Your task to perform on an android device: How much does a 2 bedroom apartment rent for in San Francisco? Image 0: 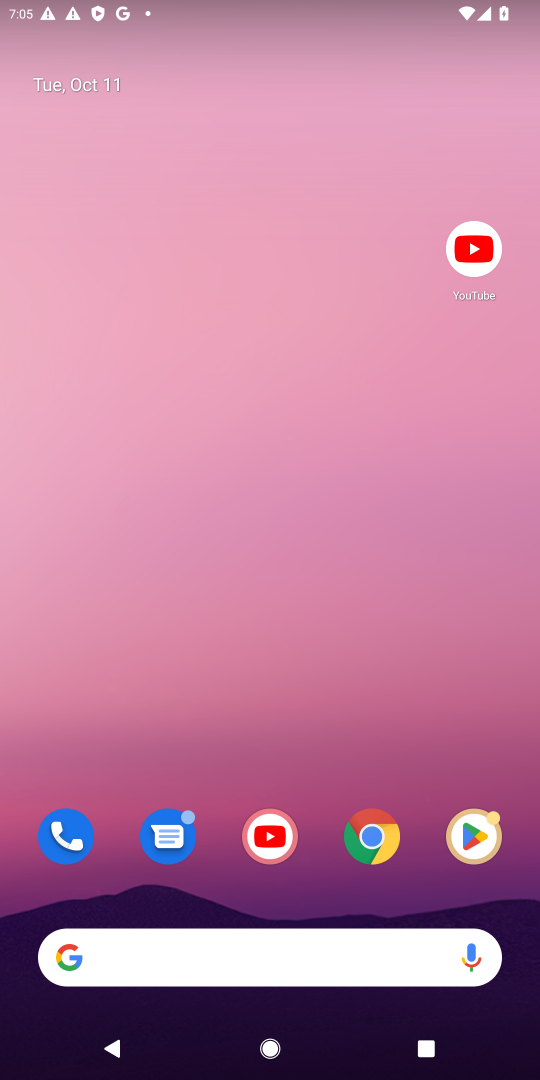
Step 0: click (363, 844)
Your task to perform on an android device: How much does a 2 bedroom apartment rent for in San Francisco? Image 1: 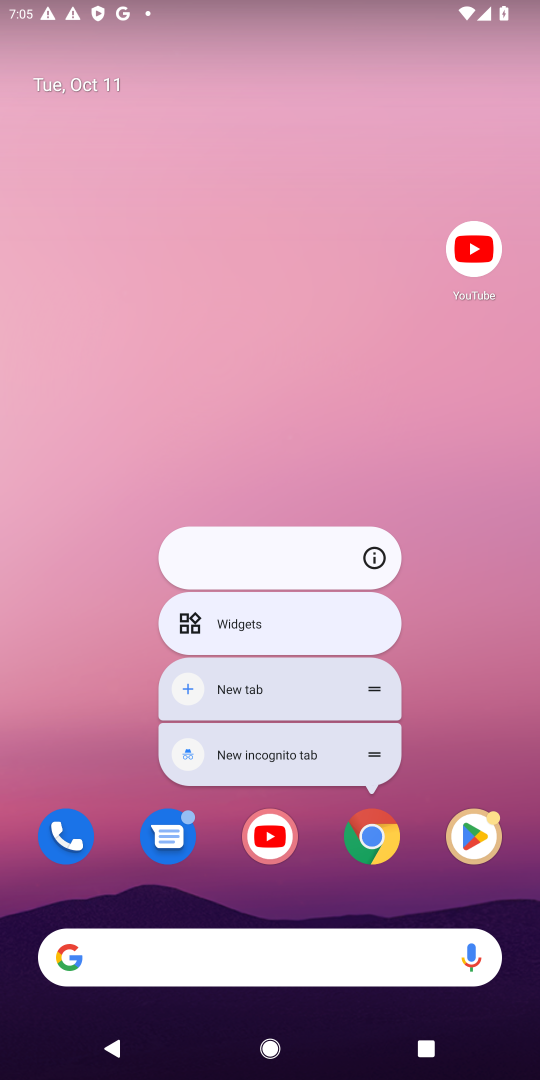
Step 1: click (361, 843)
Your task to perform on an android device: How much does a 2 bedroom apartment rent for in San Francisco? Image 2: 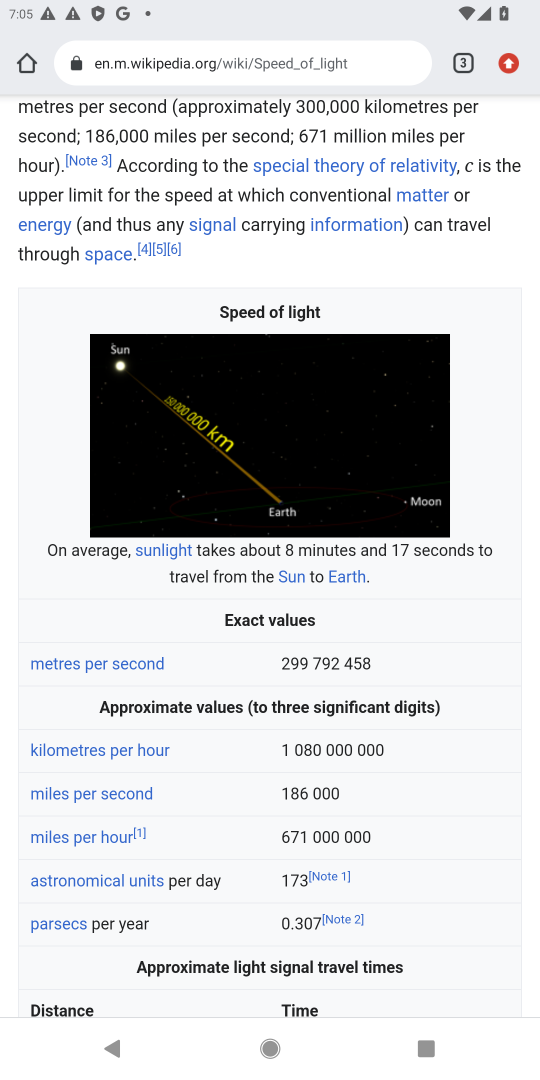
Step 2: click (163, 66)
Your task to perform on an android device: How much does a 2 bedroom apartment rent for in San Francisco? Image 3: 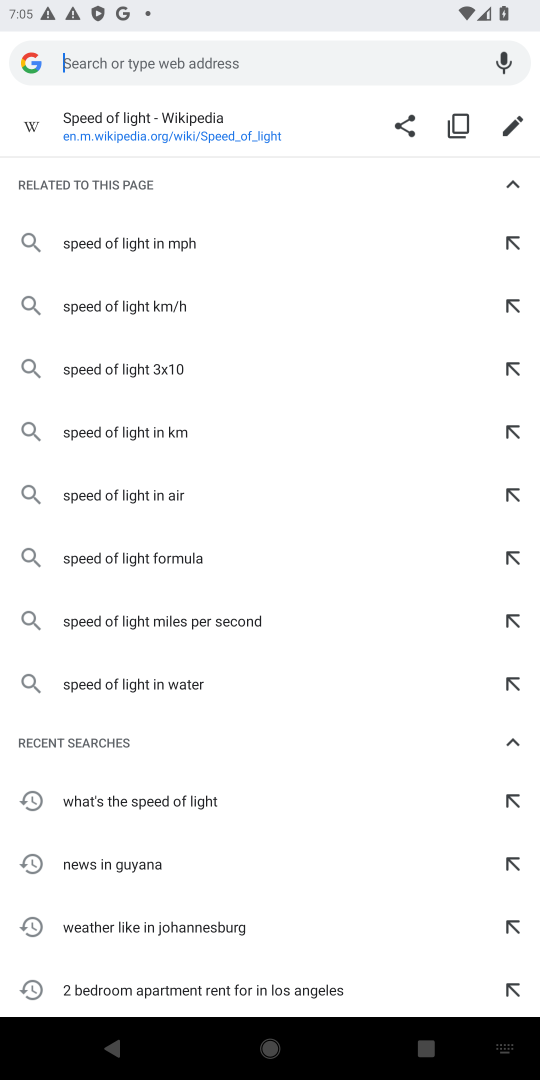
Step 3: type "2 bedroom apartment rent for in San Francisco"
Your task to perform on an android device: How much does a 2 bedroom apartment rent for in San Francisco? Image 4: 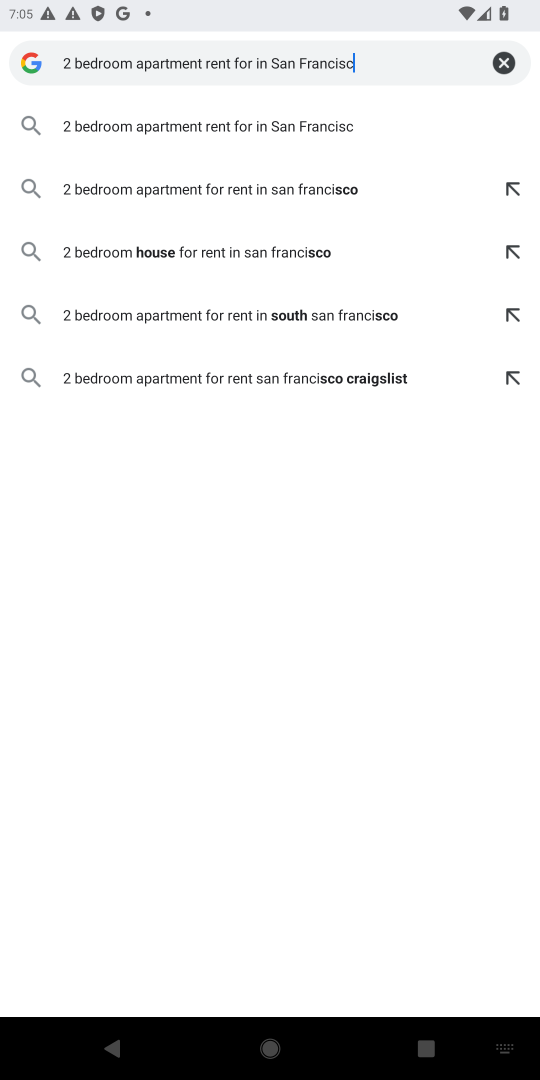
Step 4: press enter
Your task to perform on an android device: How much does a 2 bedroom apartment rent for in San Francisco? Image 5: 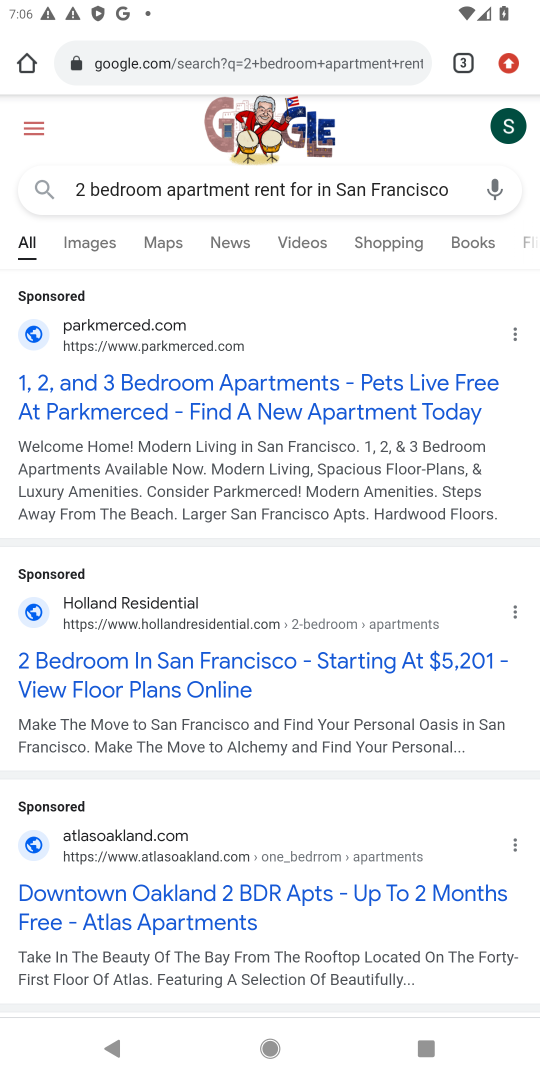
Step 5: drag from (248, 821) to (308, 499)
Your task to perform on an android device: How much does a 2 bedroom apartment rent for in San Francisco? Image 6: 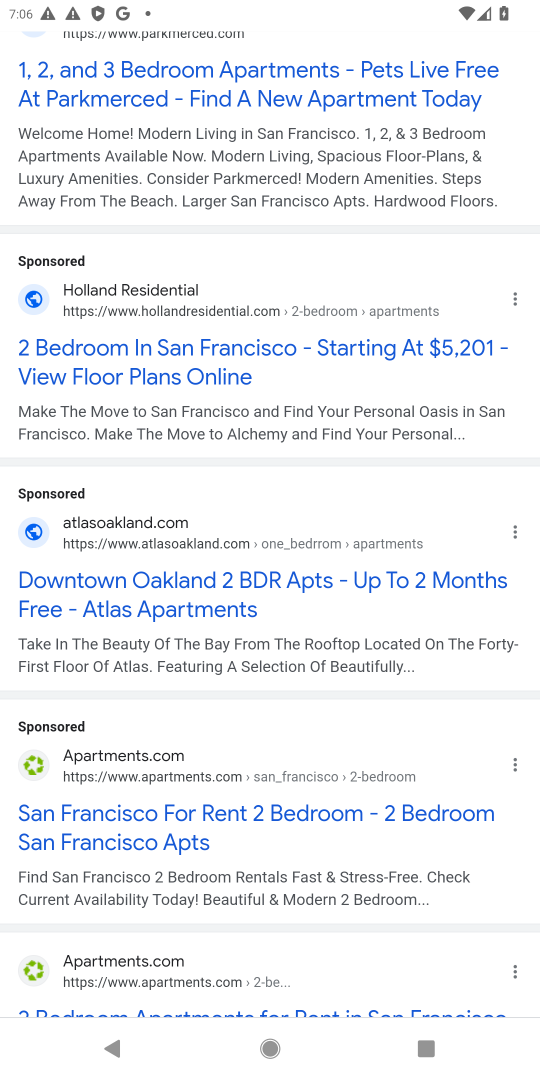
Step 6: click (177, 831)
Your task to perform on an android device: How much does a 2 bedroom apartment rent for in San Francisco? Image 7: 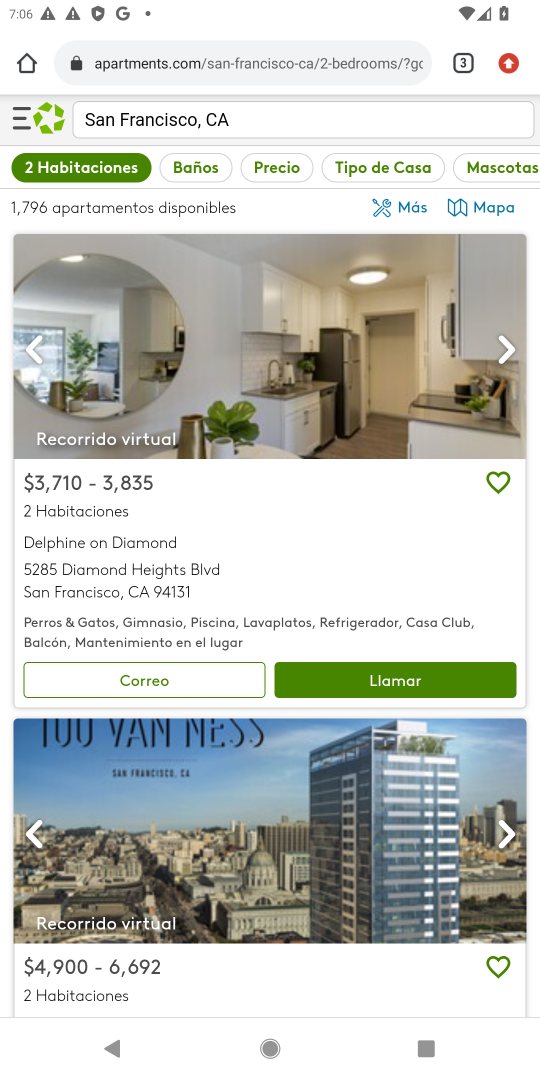
Step 7: task complete